Your task to perform on an android device: turn on the 24-hour format for clock Image 0: 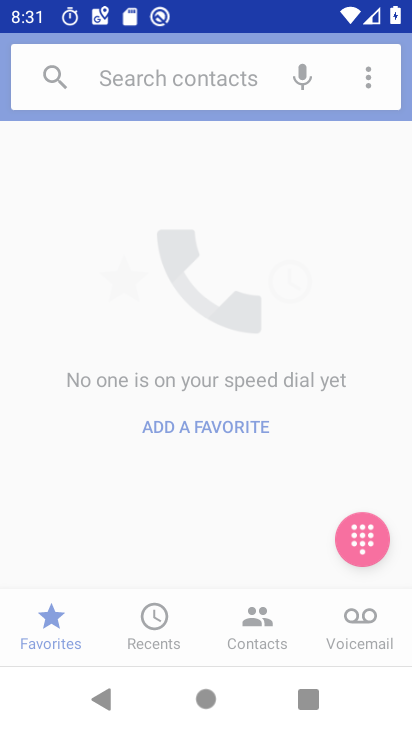
Step 0: drag from (374, 567) to (366, 393)
Your task to perform on an android device: turn on the 24-hour format for clock Image 1: 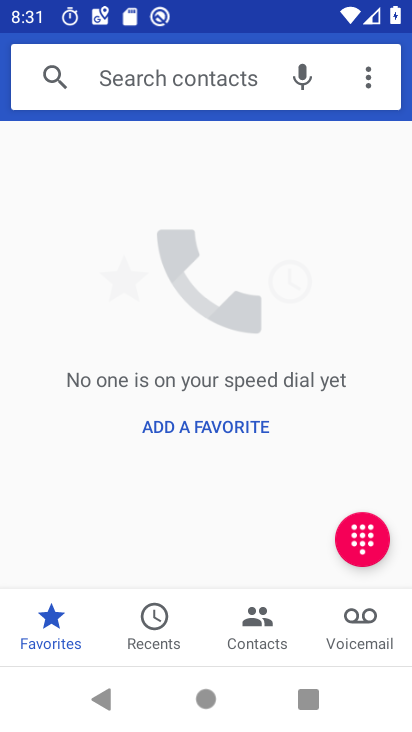
Step 1: press home button
Your task to perform on an android device: turn on the 24-hour format for clock Image 2: 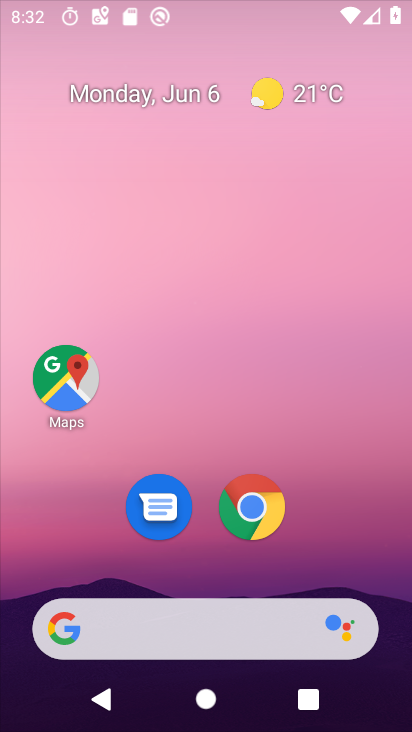
Step 2: drag from (365, 589) to (310, 56)
Your task to perform on an android device: turn on the 24-hour format for clock Image 3: 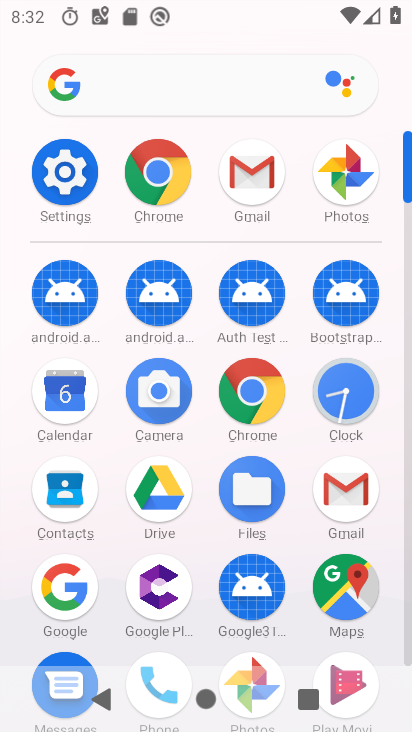
Step 3: click (364, 400)
Your task to perform on an android device: turn on the 24-hour format for clock Image 4: 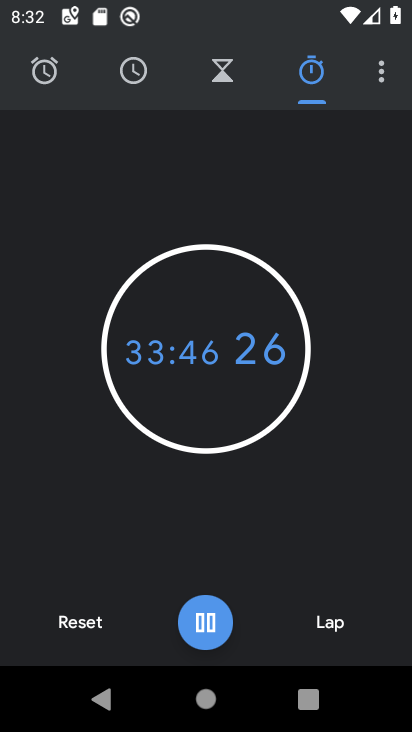
Step 4: click (380, 74)
Your task to perform on an android device: turn on the 24-hour format for clock Image 5: 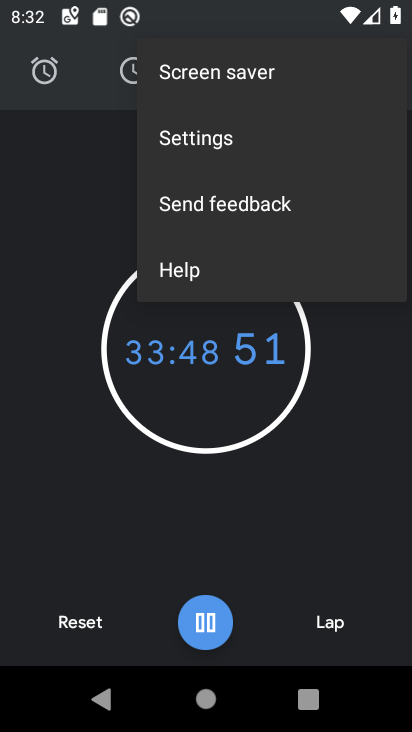
Step 5: click (207, 144)
Your task to perform on an android device: turn on the 24-hour format for clock Image 6: 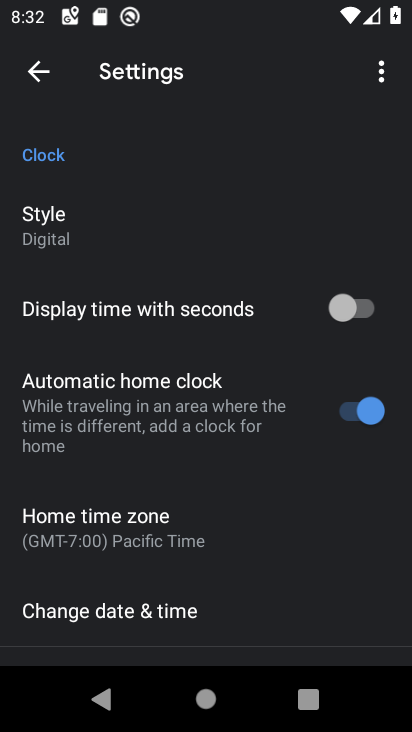
Step 6: click (200, 606)
Your task to perform on an android device: turn on the 24-hour format for clock Image 7: 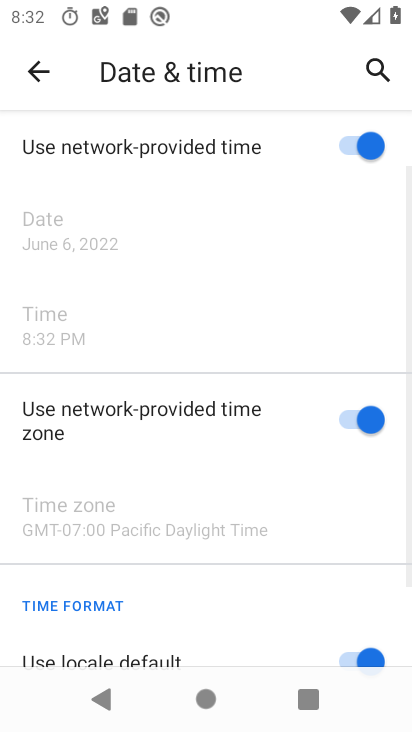
Step 7: drag from (193, 600) to (1, 587)
Your task to perform on an android device: turn on the 24-hour format for clock Image 8: 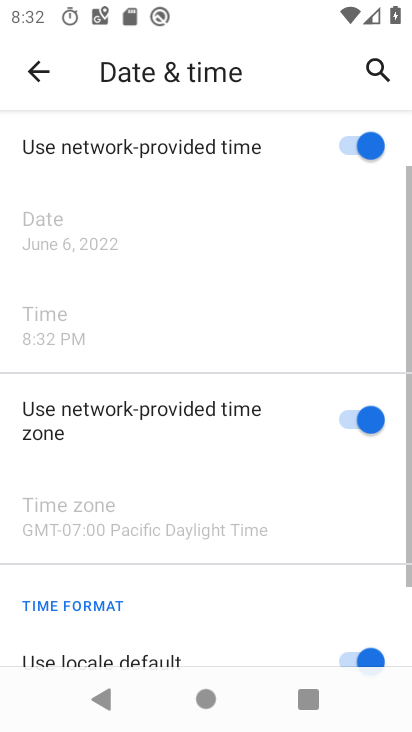
Step 8: drag from (294, 534) to (262, 169)
Your task to perform on an android device: turn on the 24-hour format for clock Image 9: 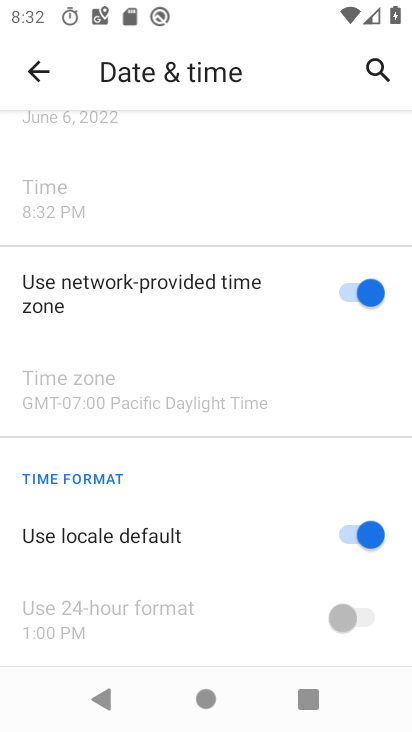
Step 9: click (269, 536)
Your task to perform on an android device: turn on the 24-hour format for clock Image 10: 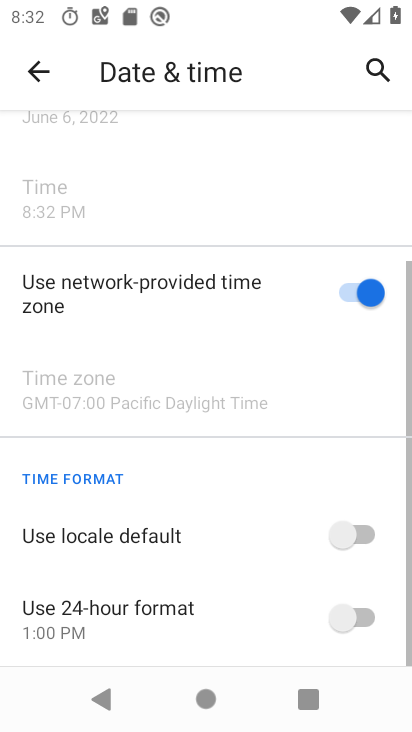
Step 10: click (281, 625)
Your task to perform on an android device: turn on the 24-hour format for clock Image 11: 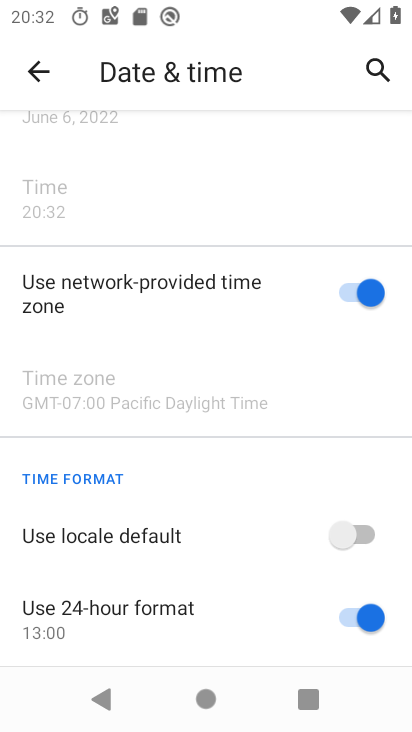
Step 11: task complete